Your task to perform on an android device: toggle show notifications on the lock screen Image 0: 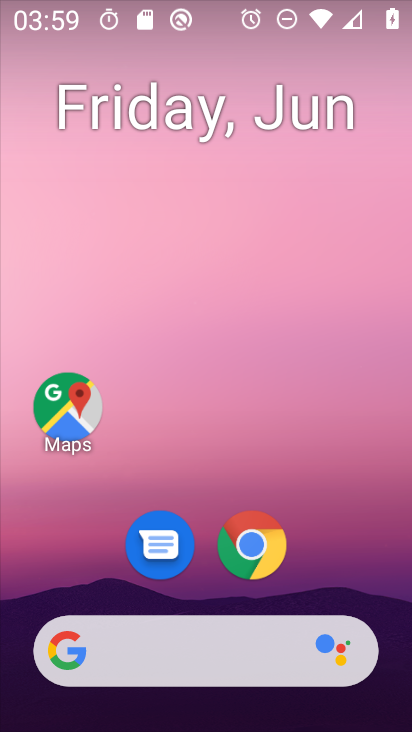
Step 0: drag from (363, 549) to (367, 0)
Your task to perform on an android device: toggle show notifications on the lock screen Image 1: 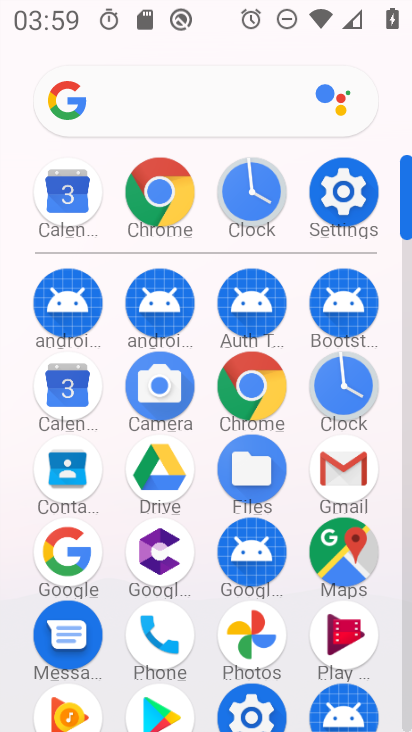
Step 1: click (358, 202)
Your task to perform on an android device: toggle show notifications on the lock screen Image 2: 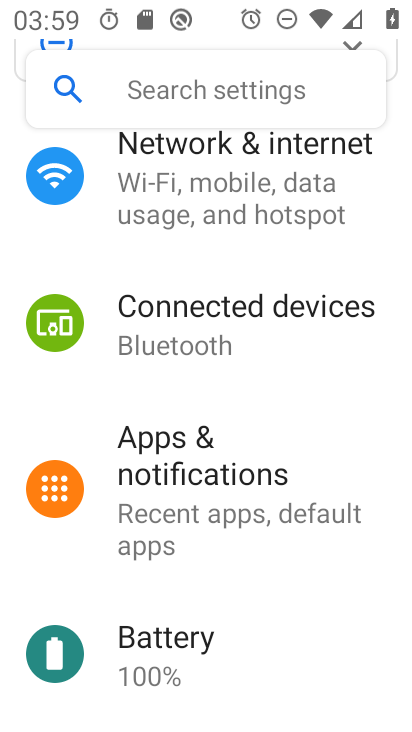
Step 2: click (193, 446)
Your task to perform on an android device: toggle show notifications on the lock screen Image 3: 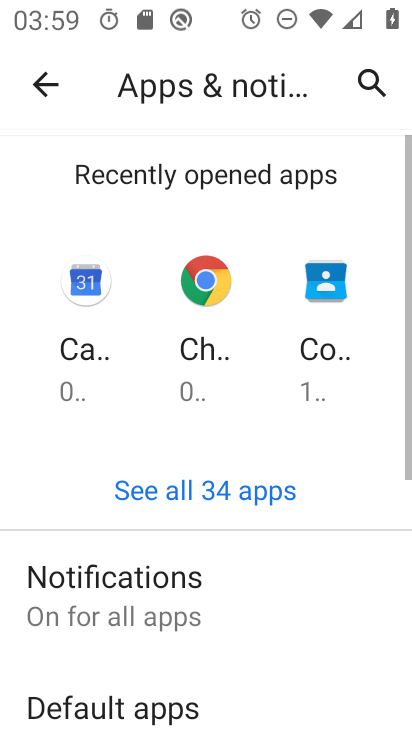
Step 3: click (194, 599)
Your task to perform on an android device: toggle show notifications on the lock screen Image 4: 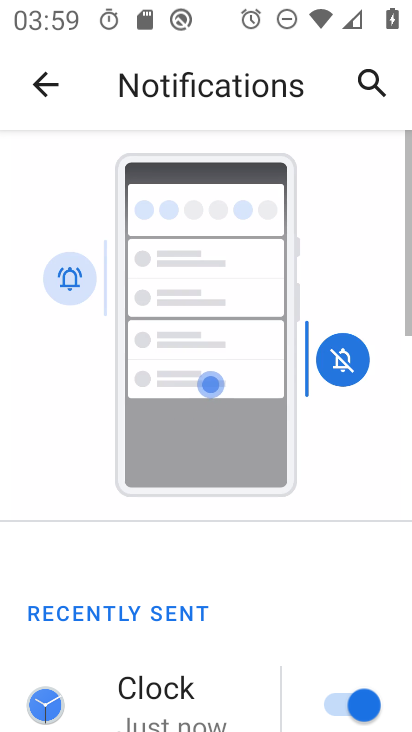
Step 4: drag from (174, 554) to (178, 115)
Your task to perform on an android device: toggle show notifications on the lock screen Image 5: 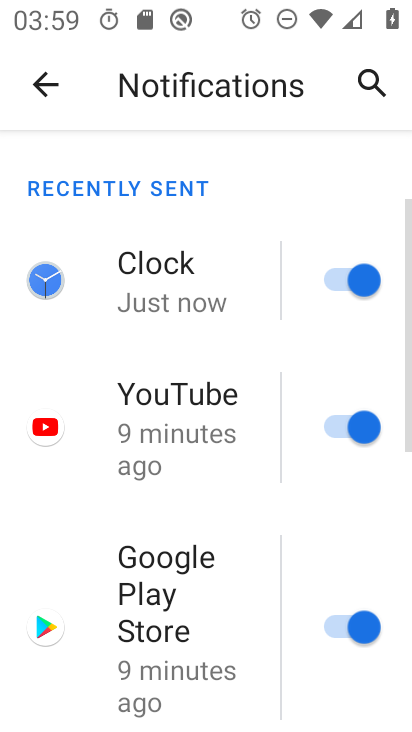
Step 5: drag from (197, 673) to (228, 189)
Your task to perform on an android device: toggle show notifications on the lock screen Image 6: 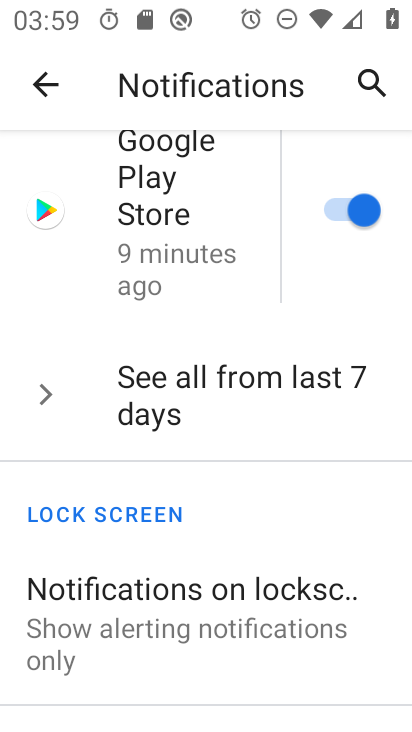
Step 6: click (174, 663)
Your task to perform on an android device: toggle show notifications on the lock screen Image 7: 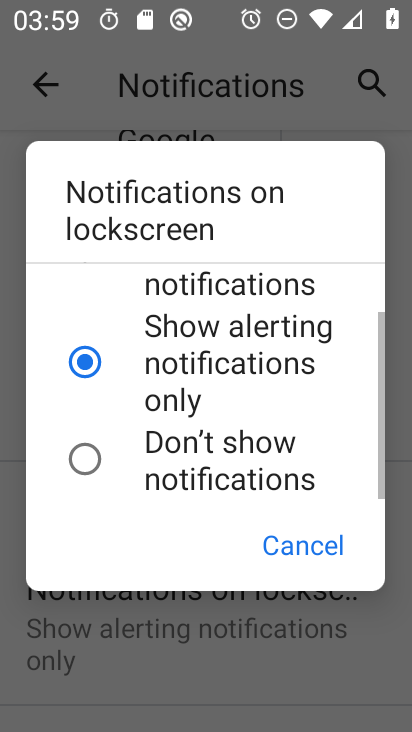
Step 7: click (198, 451)
Your task to perform on an android device: toggle show notifications on the lock screen Image 8: 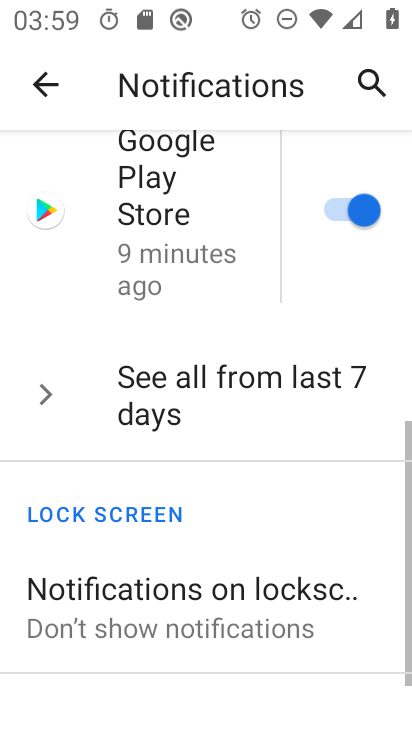
Step 8: task complete